Your task to perform on an android device: delete location history Image 0: 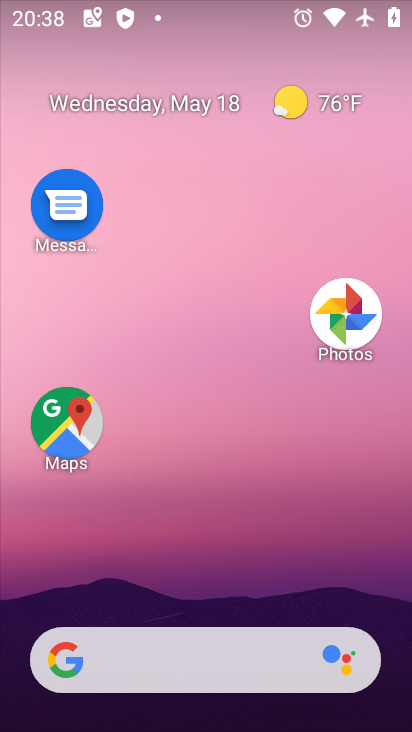
Step 0: drag from (219, 615) to (192, 5)
Your task to perform on an android device: delete location history Image 1: 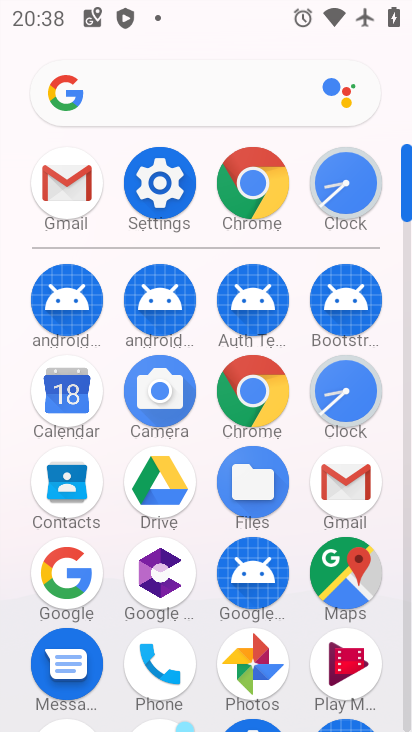
Step 1: click (374, 577)
Your task to perform on an android device: delete location history Image 2: 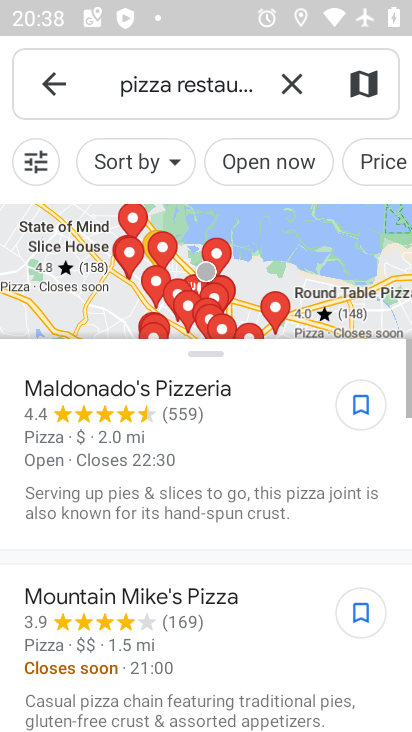
Step 2: click (78, 77)
Your task to perform on an android device: delete location history Image 3: 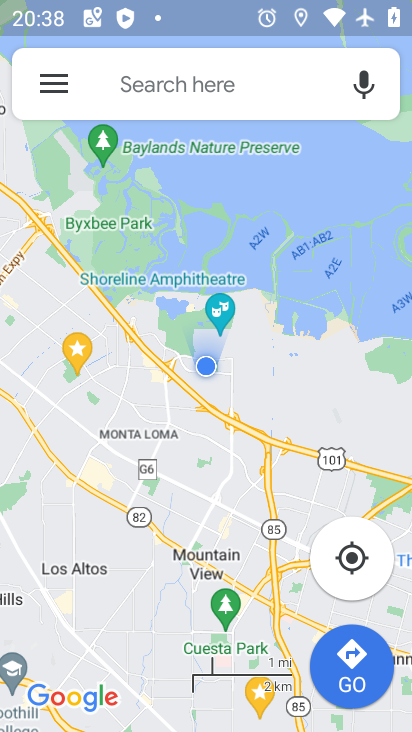
Step 3: click (46, 81)
Your task to perform on an android device: delete location history Image 4: 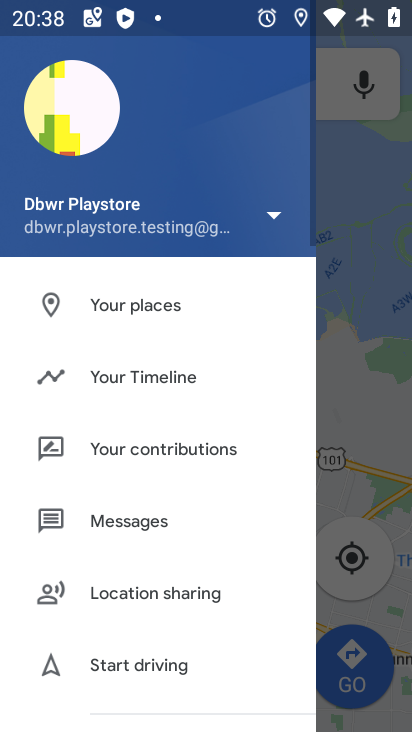
Step 4: click (126, 361)
Your task to perform on an android device: delete location history Image 5: 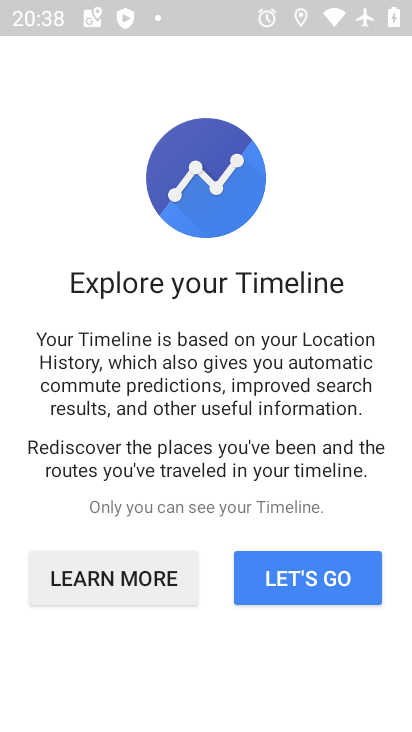
Step 5: click (291, 583)
Your task to perform on an android device: delete location history Image 6: 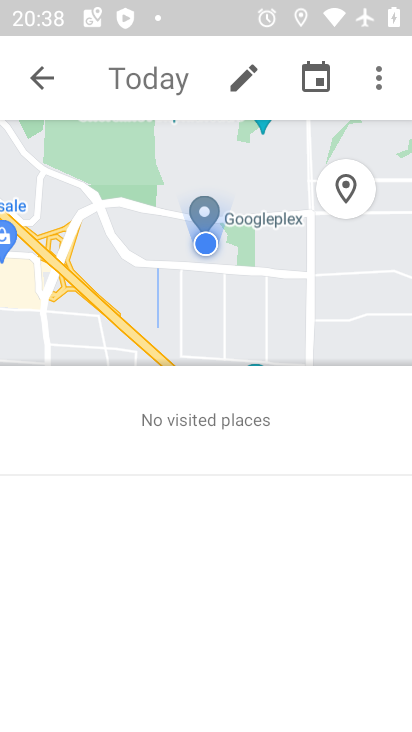
Step 6: click (378, 90)
Your task to perform on an android device: delete location history Image 7: 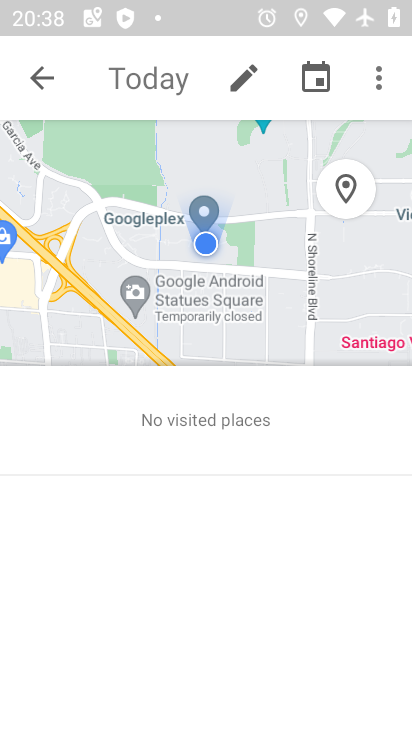
Step 7: click (378, 68)
Your task to perform on an android device: delete location history Image 8: 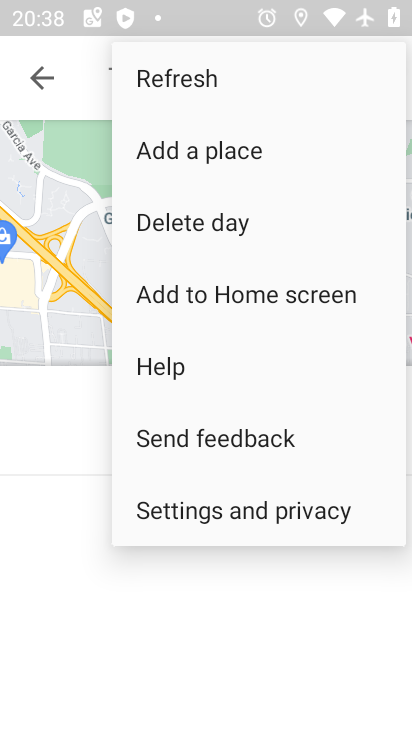
Step 8: click (226, 502)
Your task to perform on an android device: delete location history Image 9: 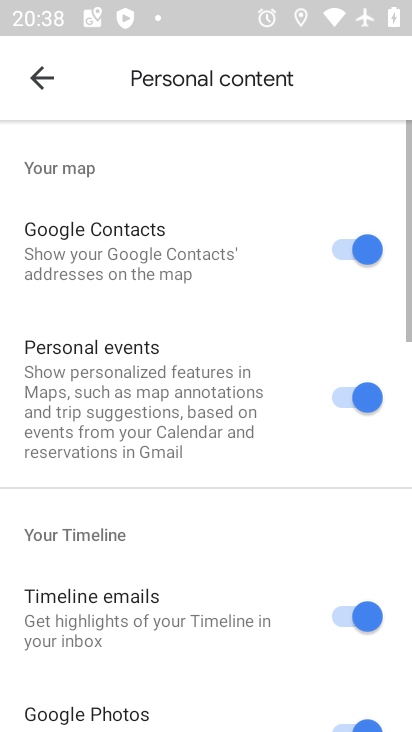
Step 9: drag from (226, 502) to (225, 61)
Your task to perform on an android device: delete location history Image 10: 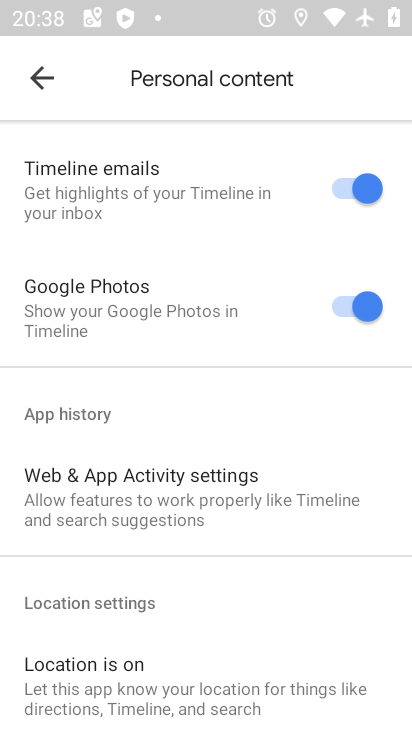
Step 10: drag from (189, 660) to (108, 153)
Your task to perform on an android device: delete location history Image 11: 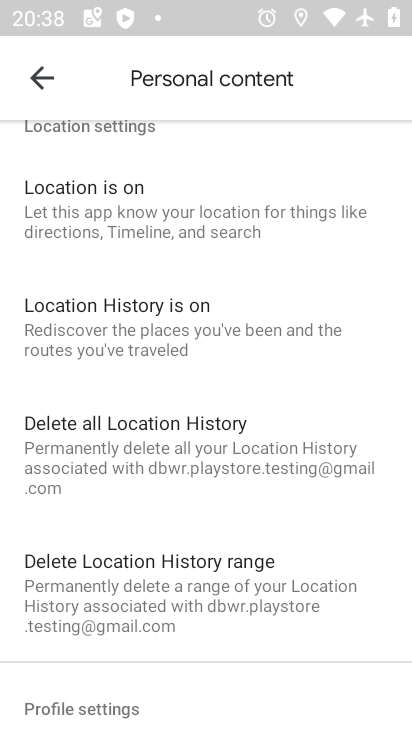
Step 11: click (141, 458)
Your task to perform on an android device: delete location history Image 12: 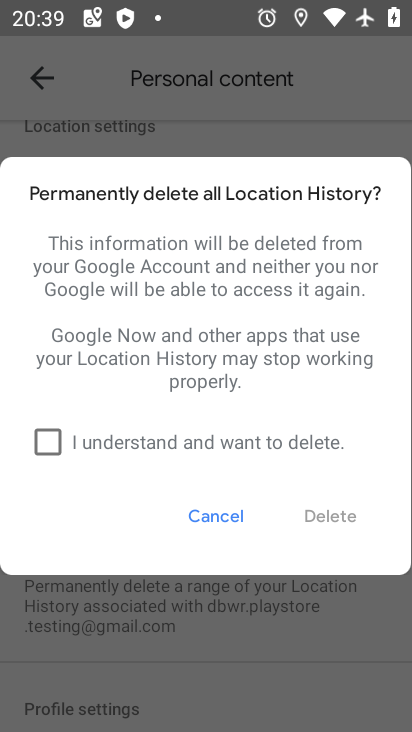
Step 12: click (56, 432)
Your task to perform on an android device: delete location history Image 13: 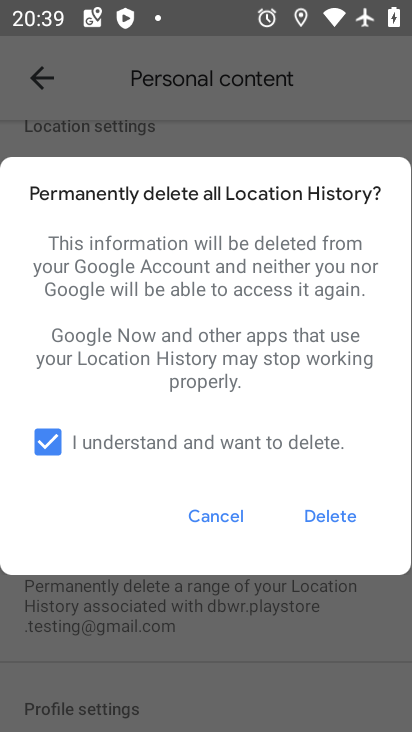
Step 13: click (332, 512)
Your task to perform on an android device: delete location history Image 14: 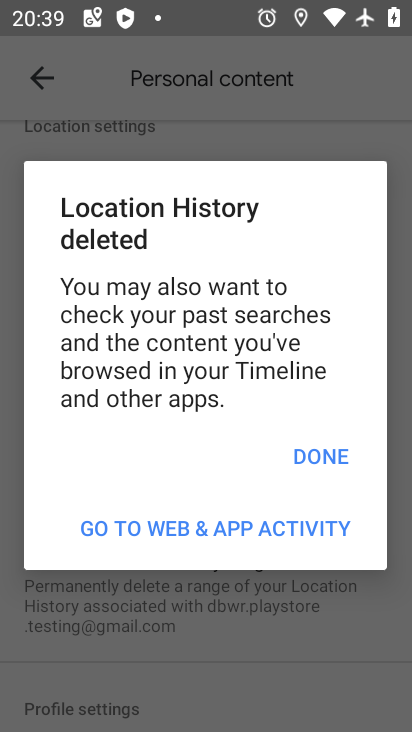
Step 14: click (319, 448)
Your task to perform on an android device: delete location history Image 15: 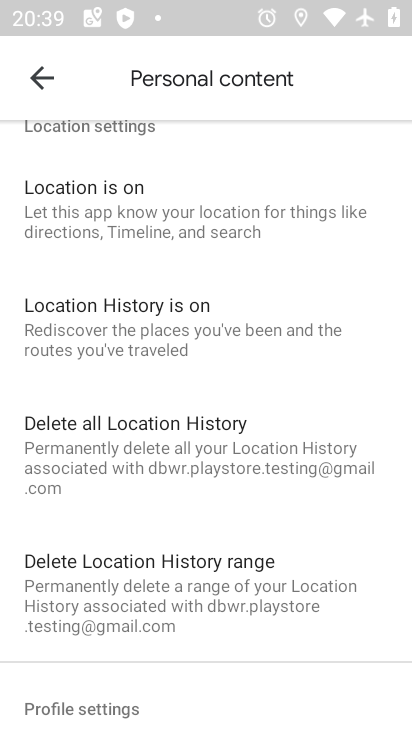
Step 15: task complete